Your task to perform on an android device: Show me the alarms in the clock app Image 0: 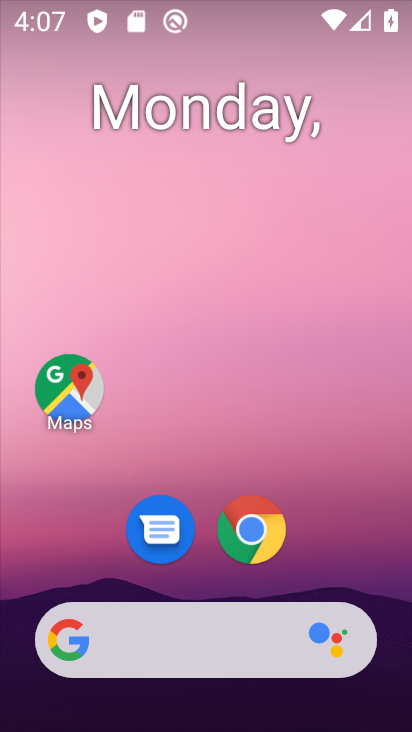
Step 0: drag from (322, 495) to (407, 30)
Your task to perform on an android device: Show me the alarms in the clock app Image 1: 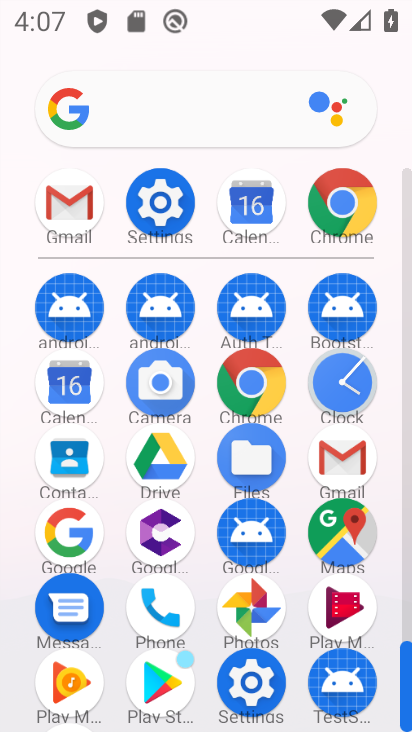
Step 1: click (348, 381)
Your task to perform on an android device: Show me the alarms in the clock app Image 2: 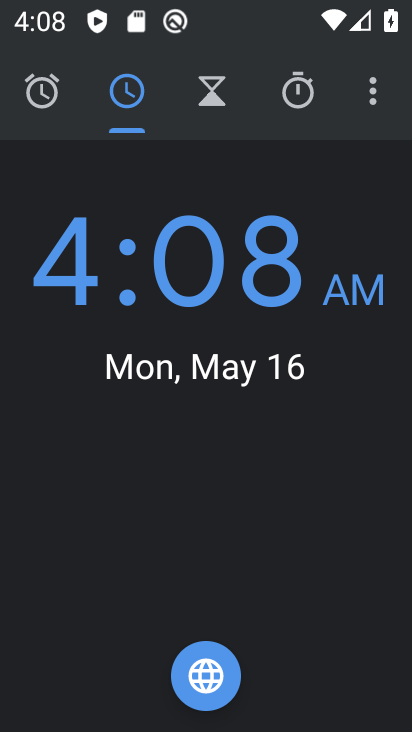
Step 2: click (39, 81)
Your task to perform on an android device: Show me the alarms in the clock app Image 3: 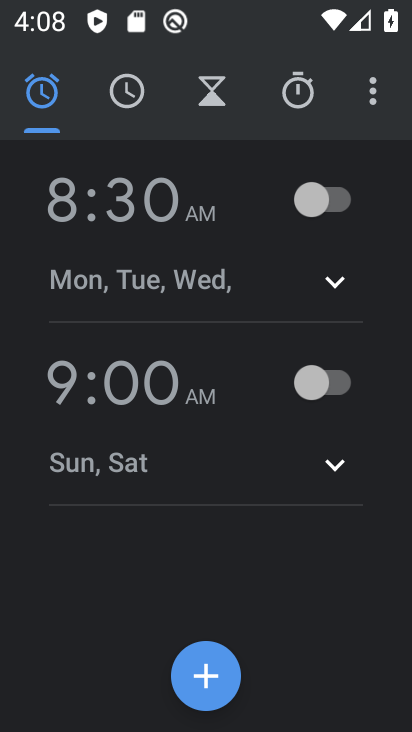
Step 3: task complete